Your task to perform on an android device: toggle notification dots Image 0: 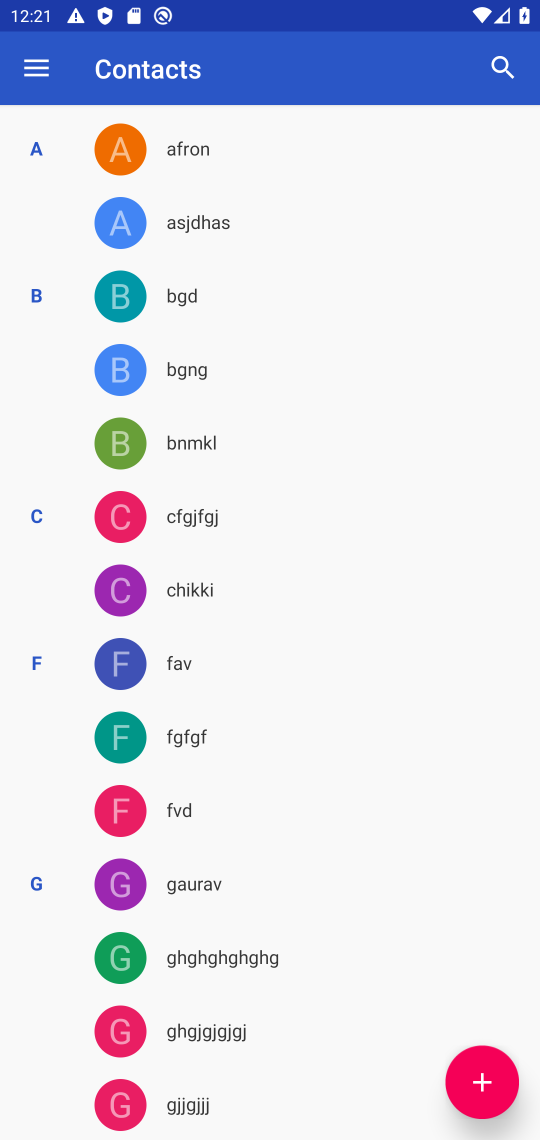
Step 0: press home button
Your task to perform on an android device: toggle notification dots Image 1: 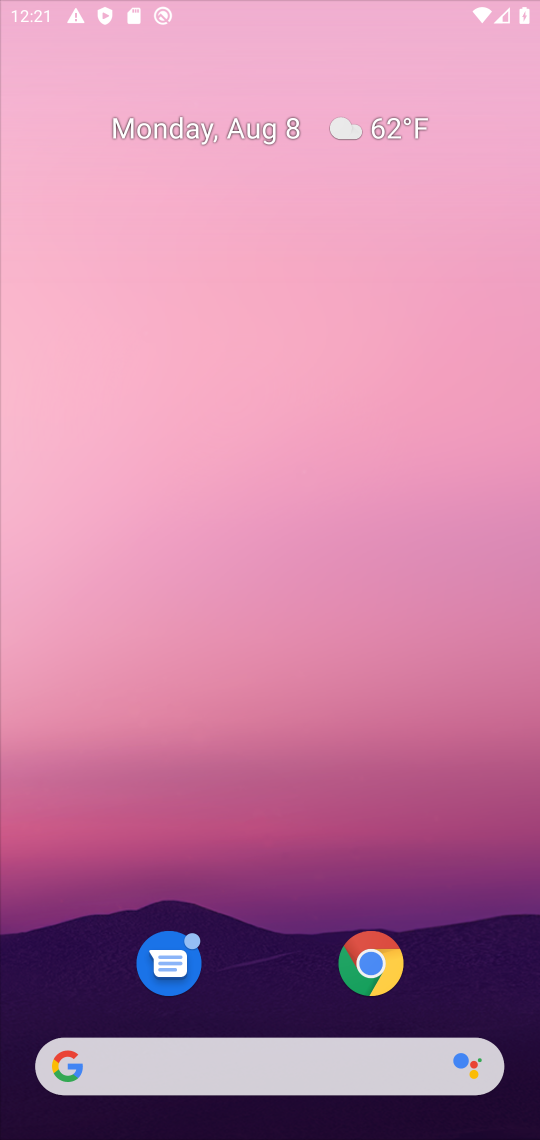
Step 1: drag from (501, 1021) to (219, 62)
Your task to perform on an android device: toggle notification dots Image 2: 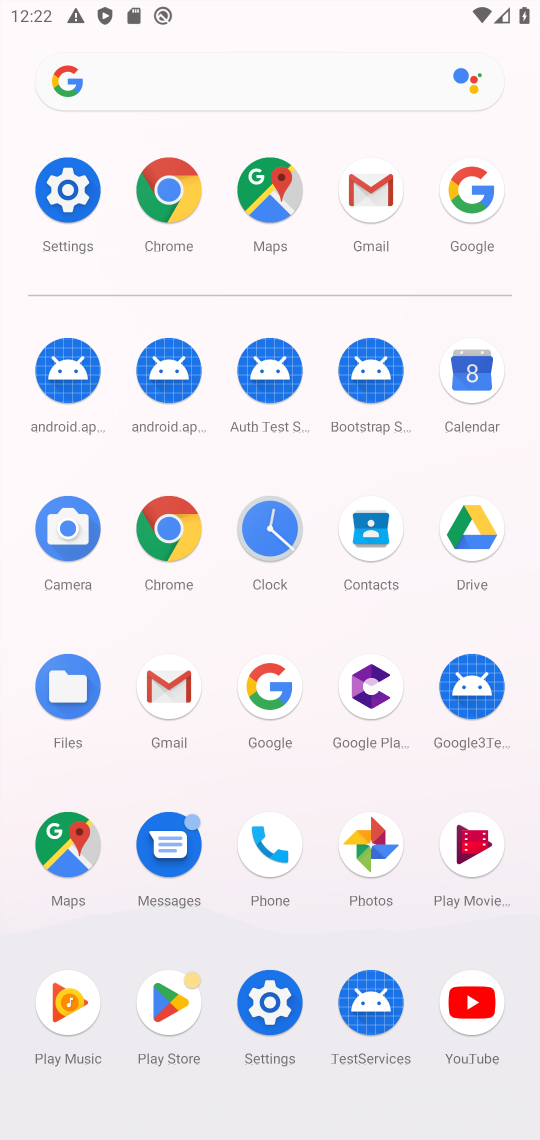
Step 2: click (278, 1008)
Your task to perform on an android device: toggle notification dots Image 3: 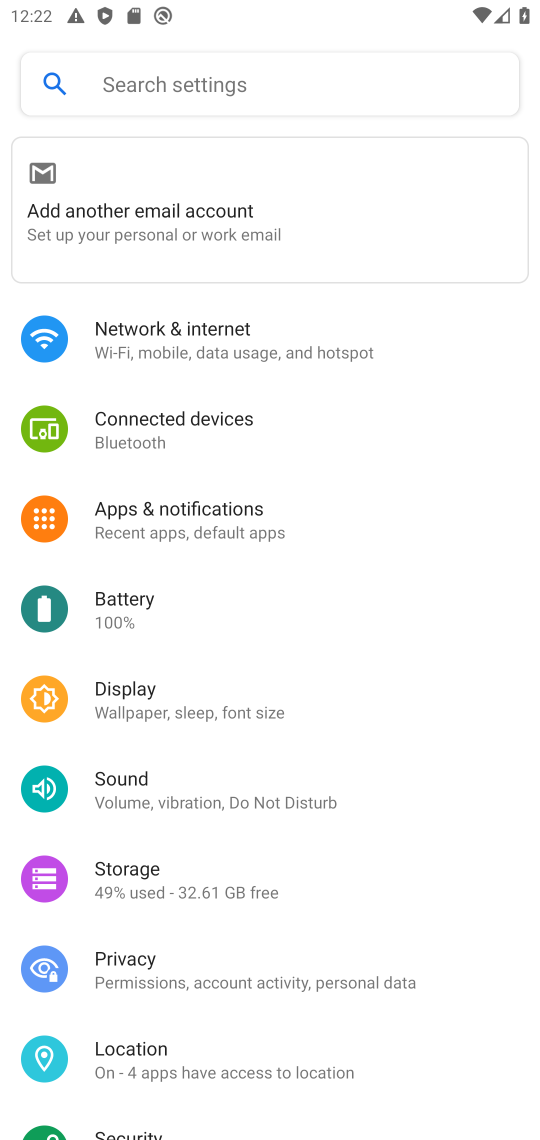
Step 3: click (168, 533)
Your task to perform on an android device: toggle notification dots Image 4: 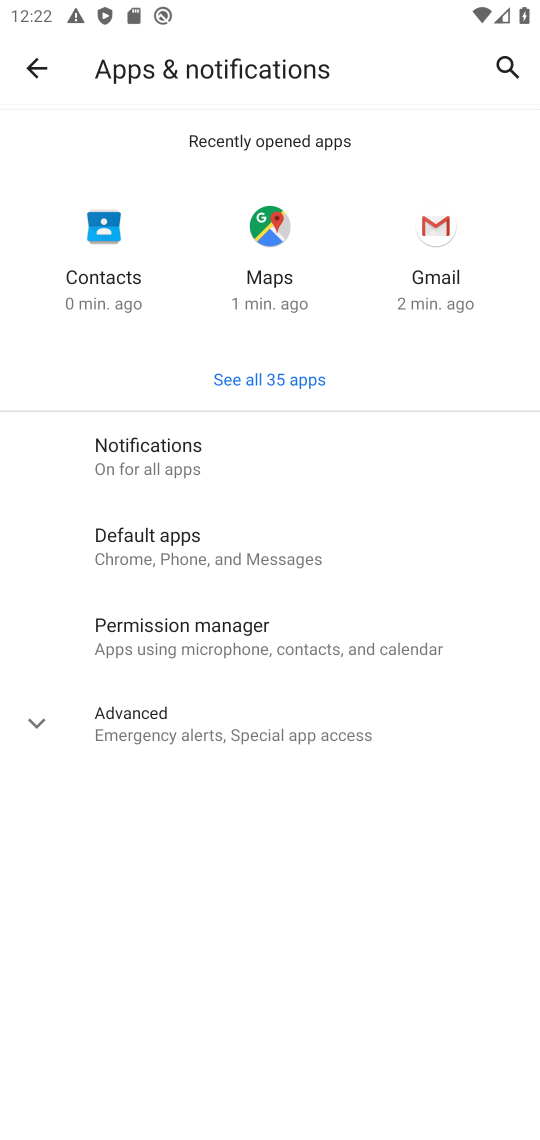
Step 4: click (214, 462)
Your task to perform on an android device: toggle notification dots Image 5: 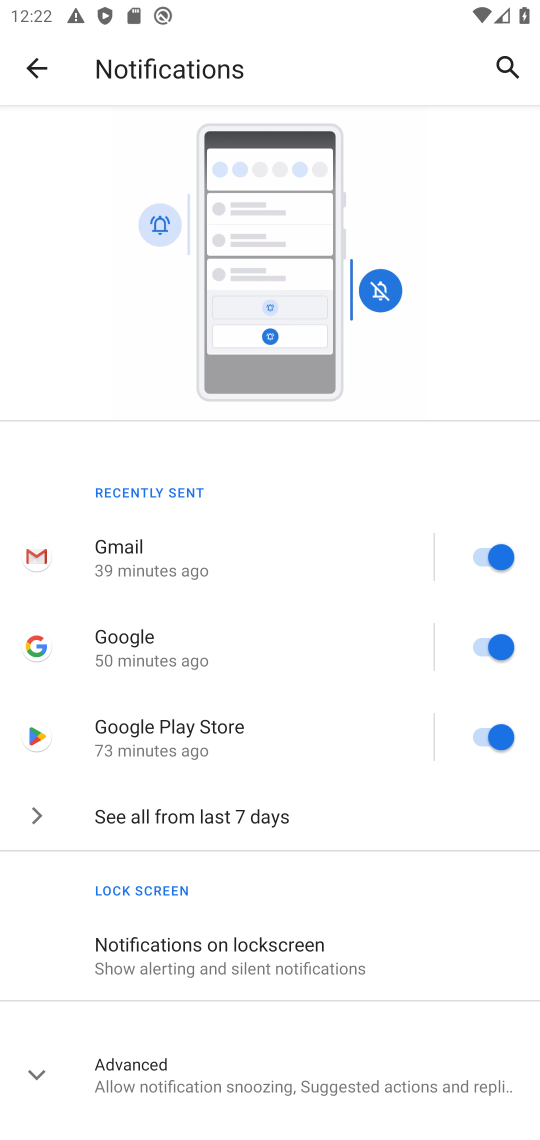
Step 5: click (170, 1080)
Your task to perform on an android device: toggle notification dots Image 6: 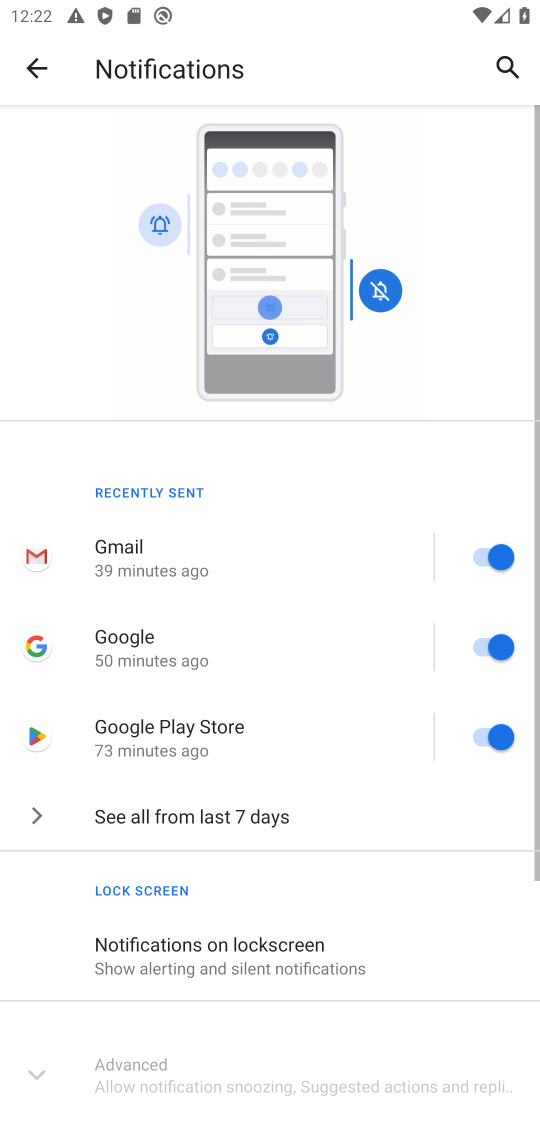
Step 6: drag from (200, 1094) to (222, 322)
Your task to perform on an android device: toggle notification dots Image 7: 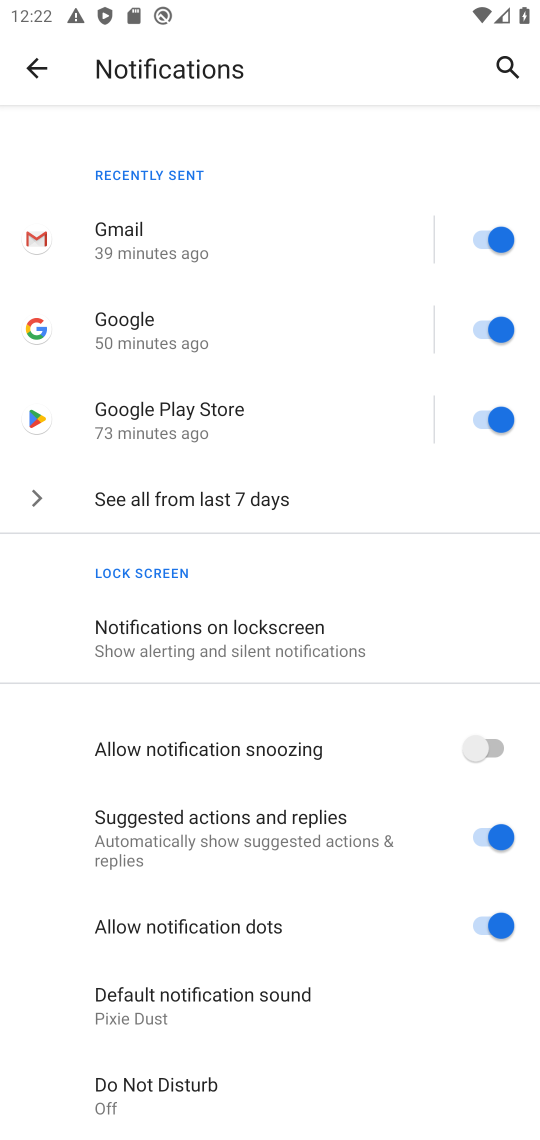
Step 7: click (393, 927)
Your task to perform on an android device: toggle notification dots Image 8: 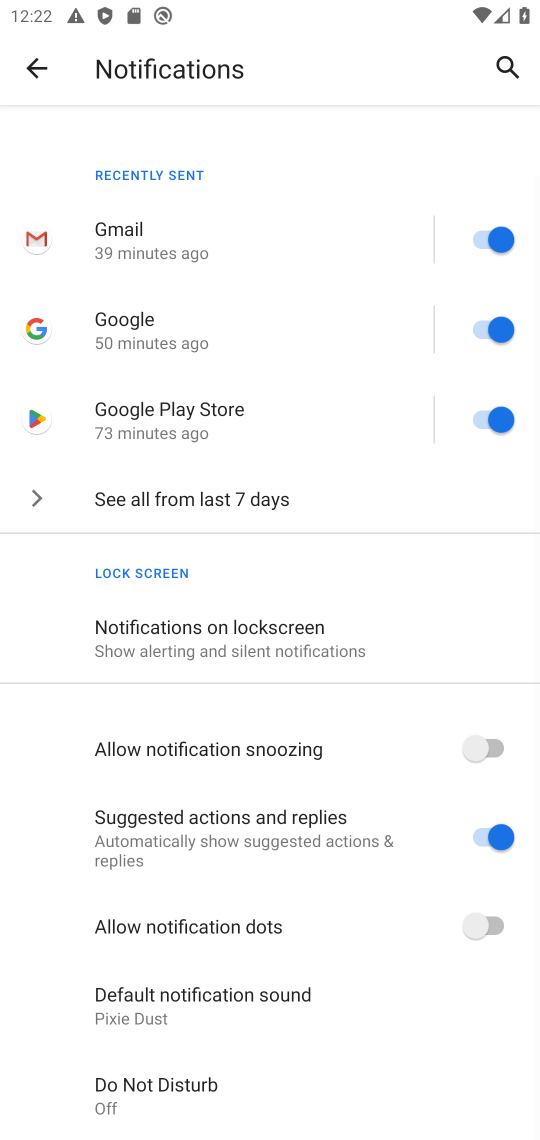
Step 8: task complete